Your task to perform on an android device: choose inbox layout in the gmail app Image 0: 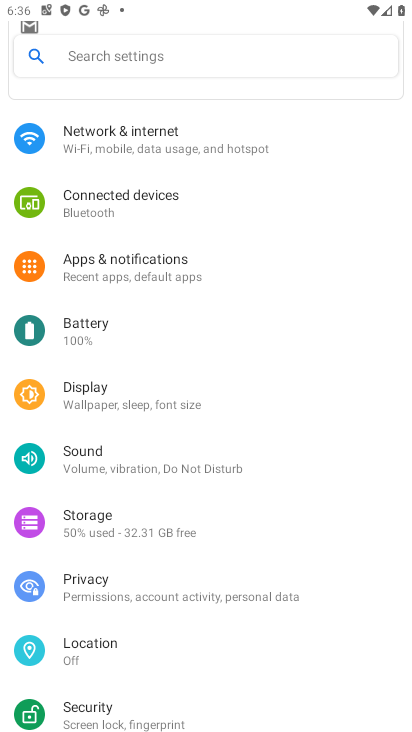
Step 0: press home button
Your task to perform on an android device: choose inbox layout in the gmail app Image 1: 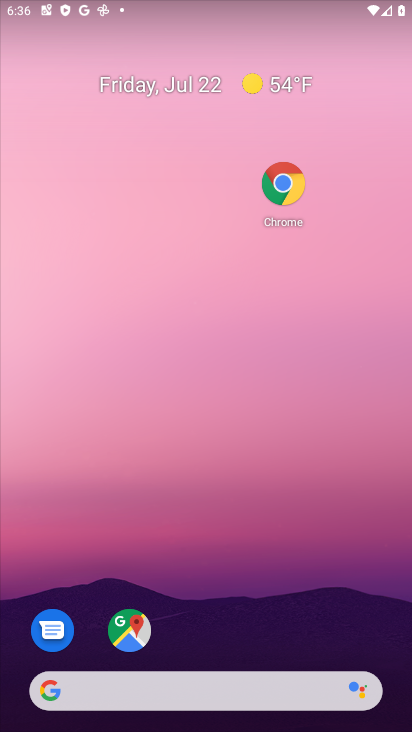
Step 1: drag from (209, 487) to (221, 113)
Your task to perform on an android device: choose inbox layout in the gmail app Image 2: 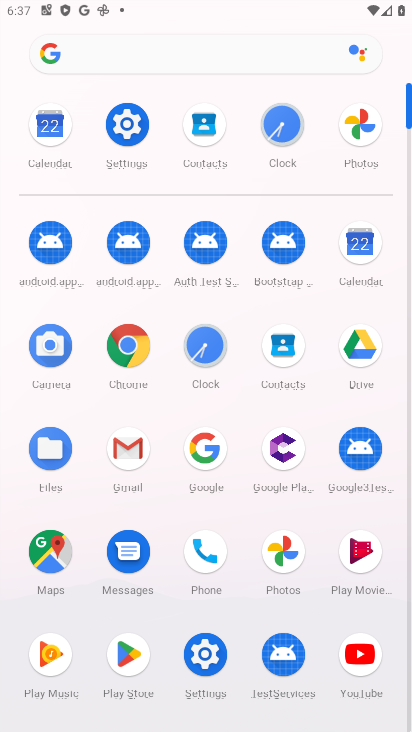
Step 2: click (130, 454)
Your task to perform on an android device: choose inbox layout in the gmail app Image 3: 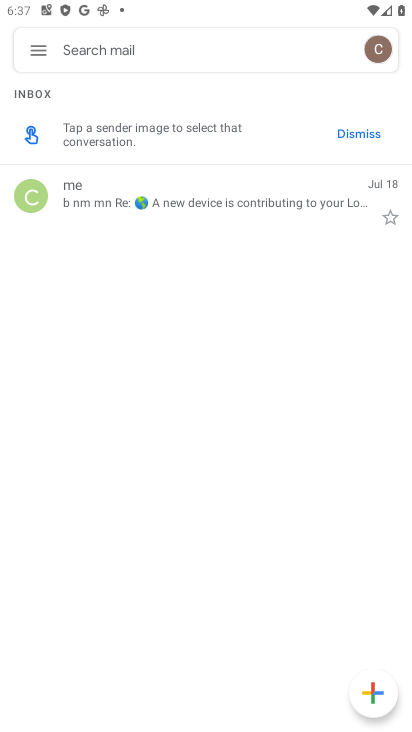
Step 3: click (27, 38)
Your task to perform on an android device: choose inbox layout in the gmail app Image 4: 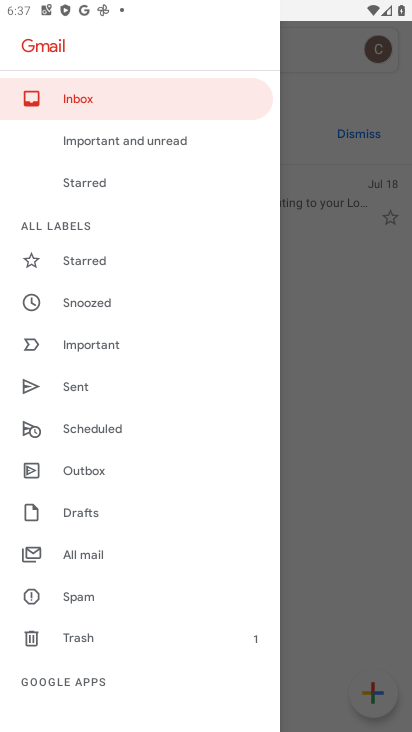
Step 4: drag from (125, 570) to (114, 441)
Your task to perform on an android device: choose inbox layout in the gmail app Image 5: 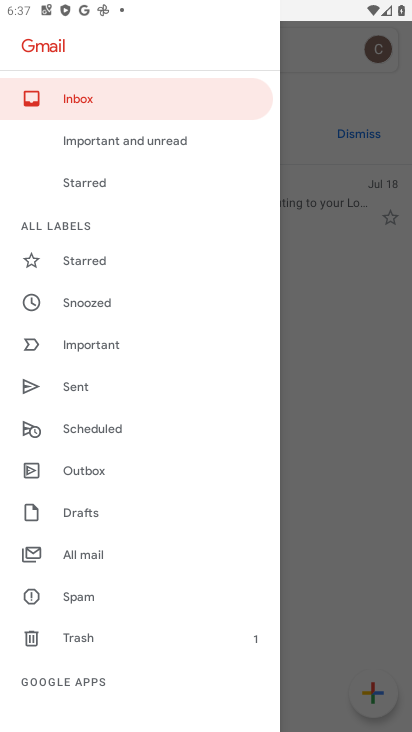
Step 5: drag from (141, 650) to (143, 361)
Your task to perform on an android device: choose inbox layout in the gmail app Image 6: 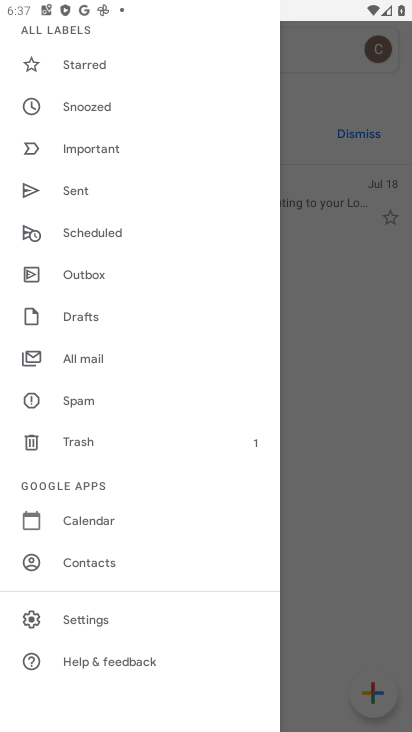
Step 6: click (75, 621)
Your task to perform on an android device: choose inbox layout in the gmail app Image 7: 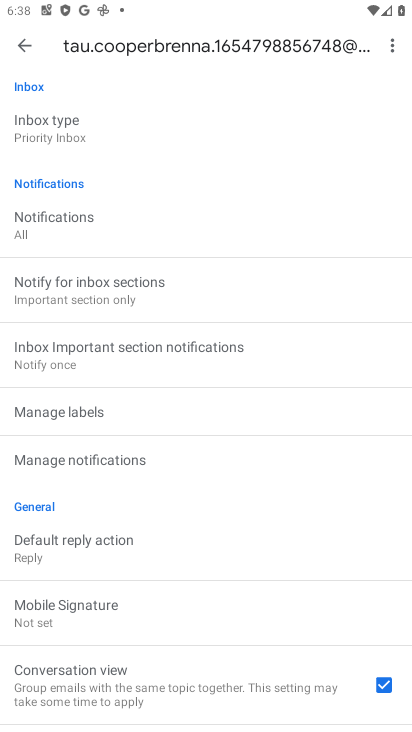
Step 7: click (66, 130)
Your task to perform on an android device: choose inbox layout in the gmail app Image 8: 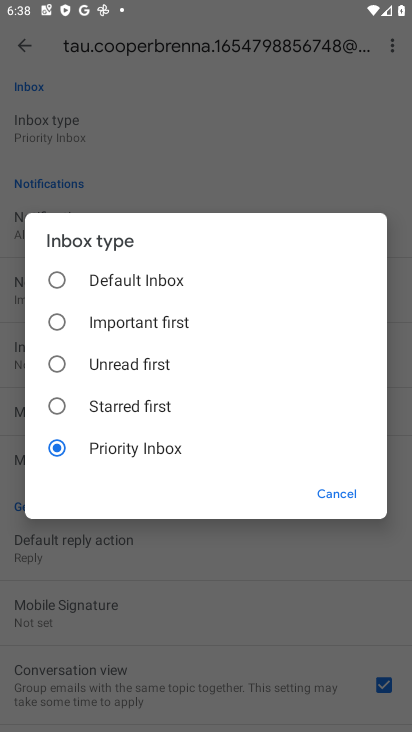
Step 8: click (54, 281)
Your task to perform on an android device: choose inbox layout in the gmail app Image 9: 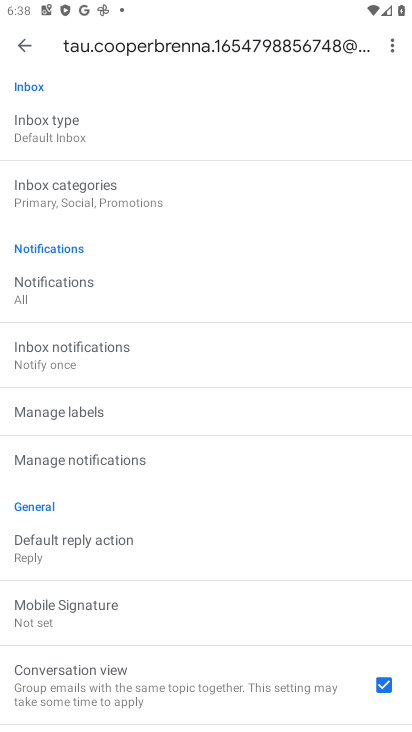
Step 9: task complete